Your task to perform on an android device: turn on priority inbox in the gmail app Image 0: 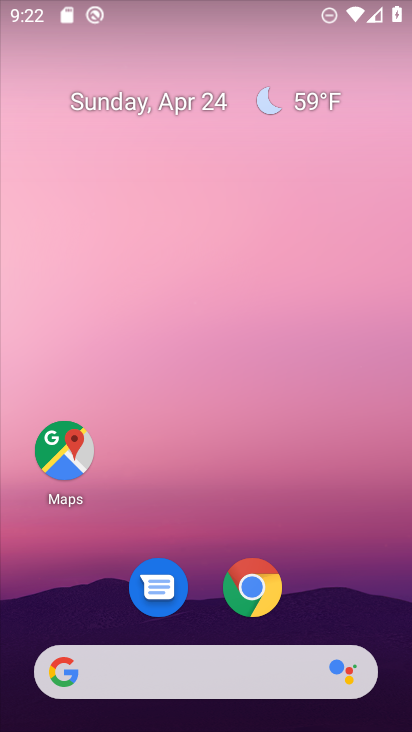
Step 0: drag from (196, 487) to (225, 18)
Your task to perform on an android device: turn on priority inbox in the gmail app Image 1: 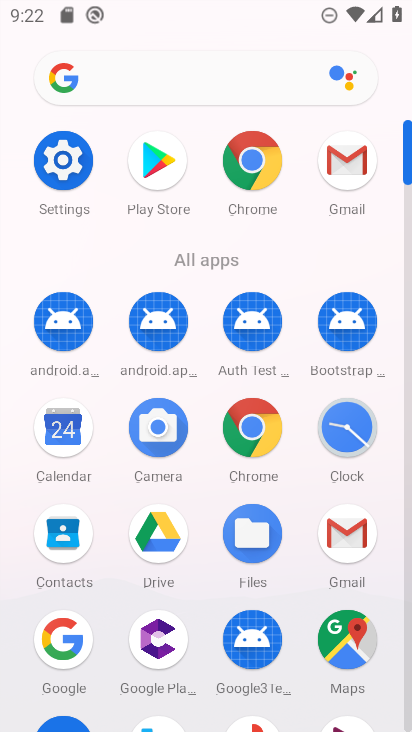
Step 1: click (345, 162)
Your task to perform on an android device: turn on priority inbox in the gmail app Image 2: 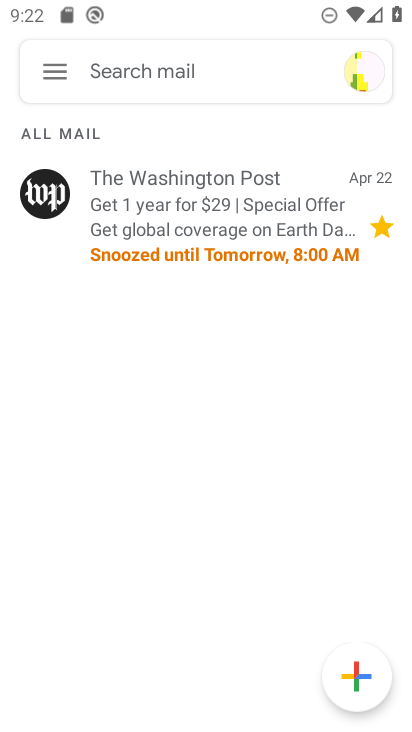
Step 2: click (53, 72)
Your task to perform on an android device: turn on priority inbox in the gmail app Image 3: 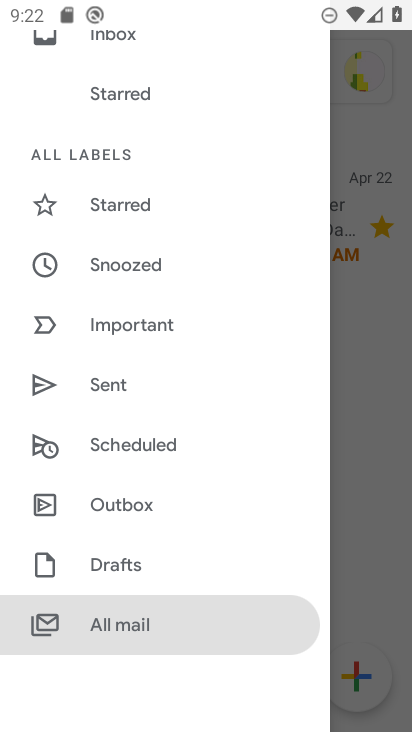
Step 3: drag from (176, 548) to (190, 439)
Your task to perform on an android device: turn on priority inbox in the gmail app Image 4: 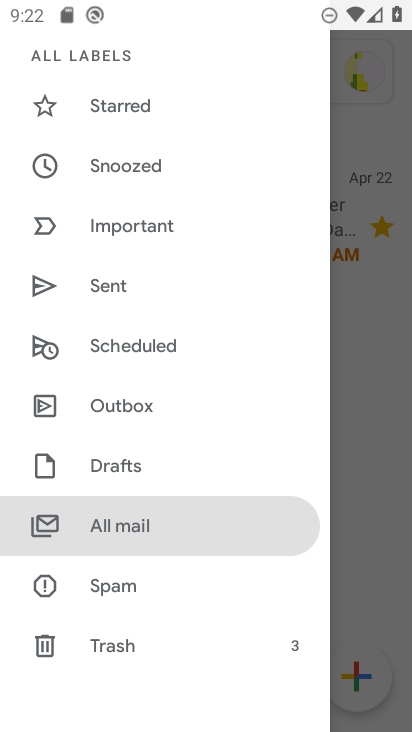
Step 4: drag from (161, 597) to (190, 445)
Your task to perform on an android device: turn on priority inbox in the gmail app Image 5: 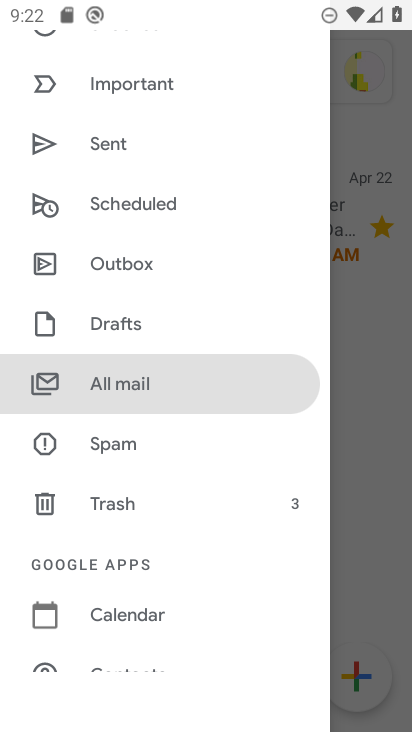
Step 5: drag from (180, 561) to (215, 429)
Your task to perform on an android device: turn on priority inbox in the gmail app Image 6: 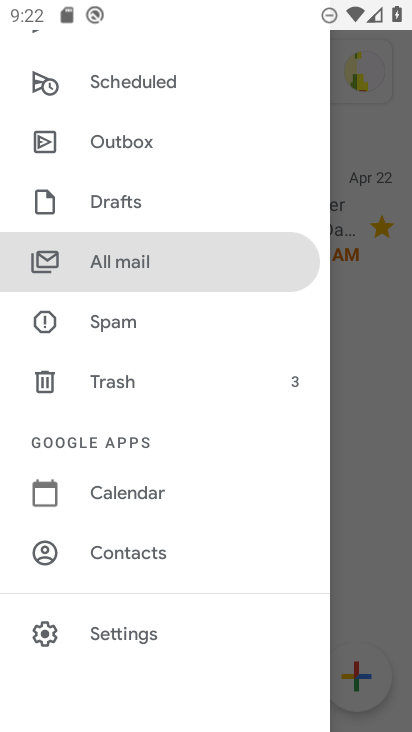
Step 6: click (138, 633)
Your task to perform on an android device: turn on priority inbox in the gmail app Image 7: 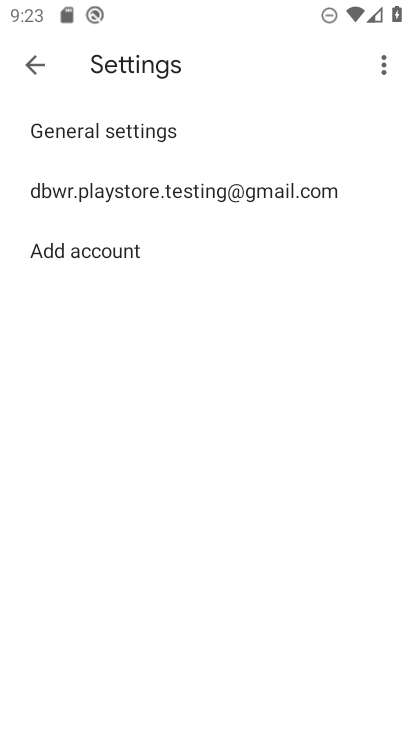
Step 7: click (197, 194)
Your task to perform on an android device: turn on priority inbox in the gmail app Image 8: 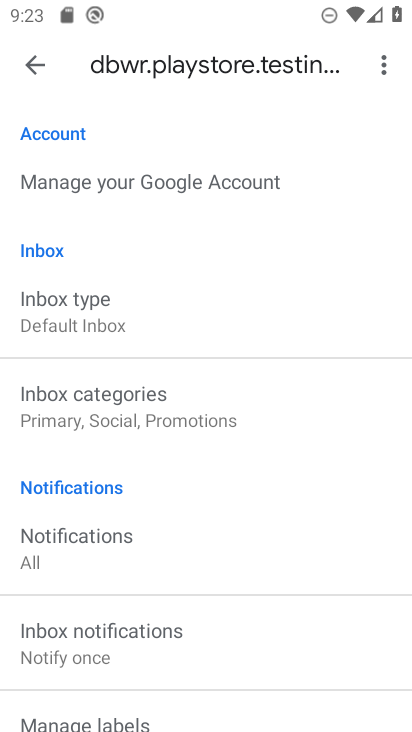
Step 8: click (95, 311)
Your task to perform on an android device: turn on priority inbox in the gmail app Image 9: 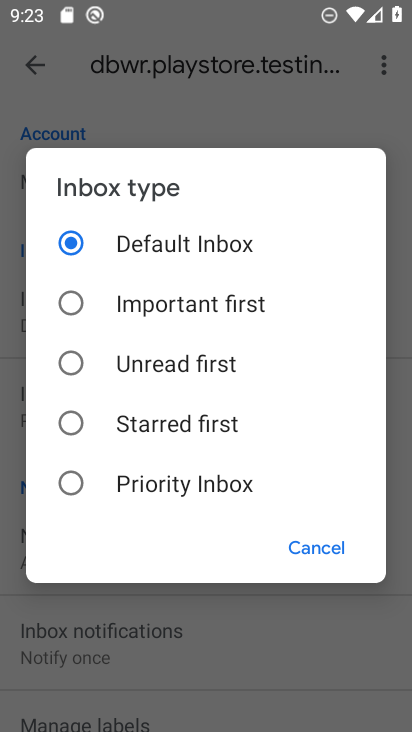
Step 9: click (69, 491)
Your task to perform on an android device: turn on priority inbox in the gmail app Image 10: 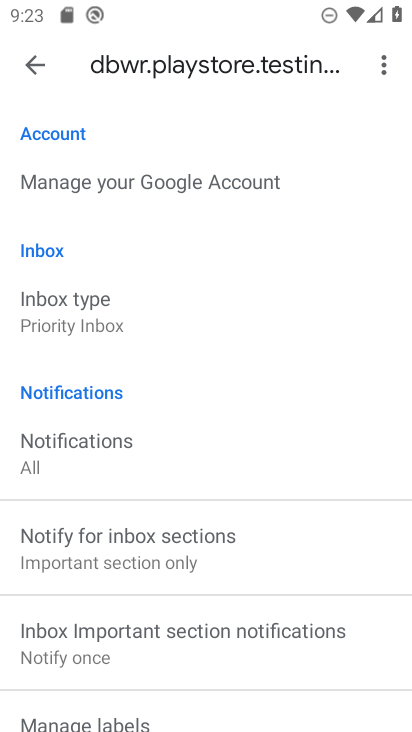
Step 10: task complete